Your task to perform on an android device: refresh tabs in the chrome app Image 0: 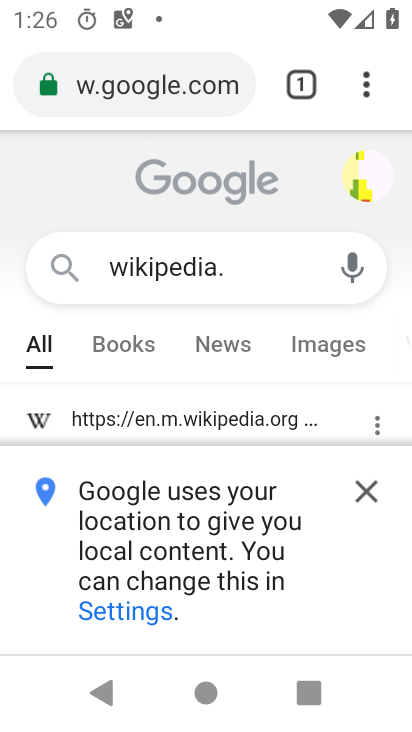
Step 0: click (368, 85)
Your task to perform on an android device: refresh tabs in the chrome app Image 1: 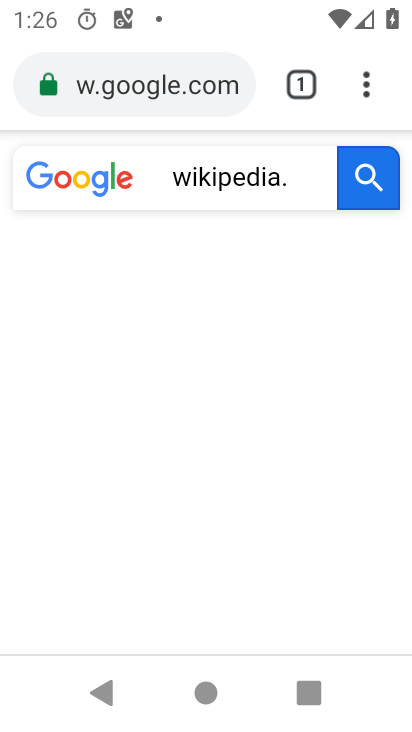
Step 1: click (367, 80)
Your task to perform on an android device: refresh tabs in the chrome app Image 2: 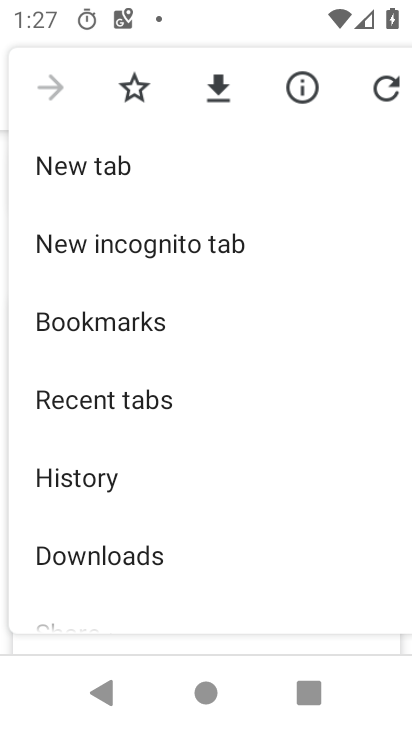
Step 2: click (372, 88)
Your task to perform on an android device: refresh tabs in the chrome app Image 3: 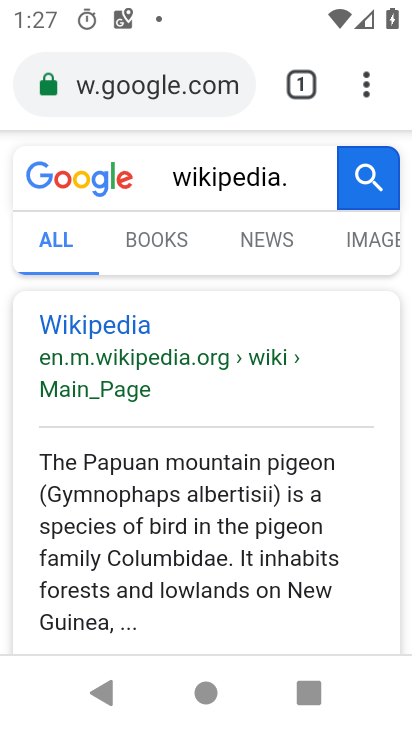
Step 3: task complete